Your task to perform on an android device: turn off smart reply in the gmail app Image 0: 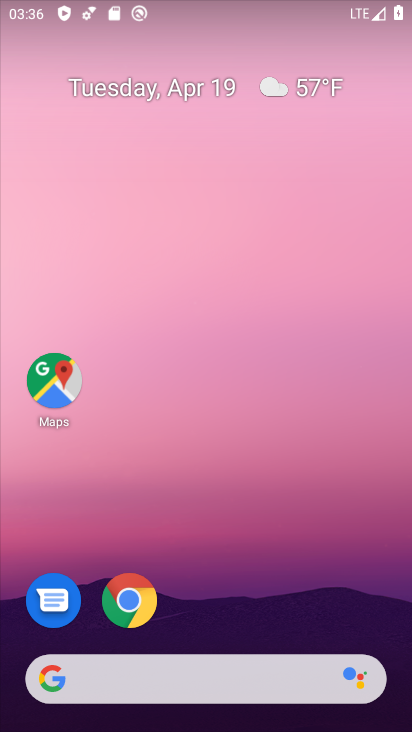
Step 0: drag from (380, 621) to (267, 223)
Your task to perform on an android device: turn off smart reply in the gmail app Image 1: 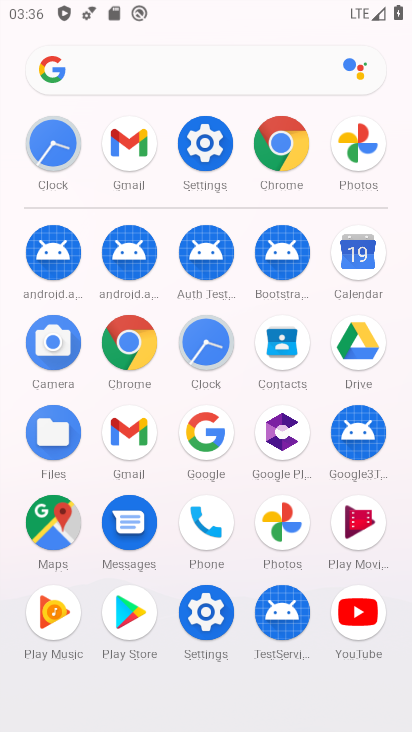
Step 1: click (122, 147)
Your task to perform on an android device: turn off smart reply in the gmail app Image 2: 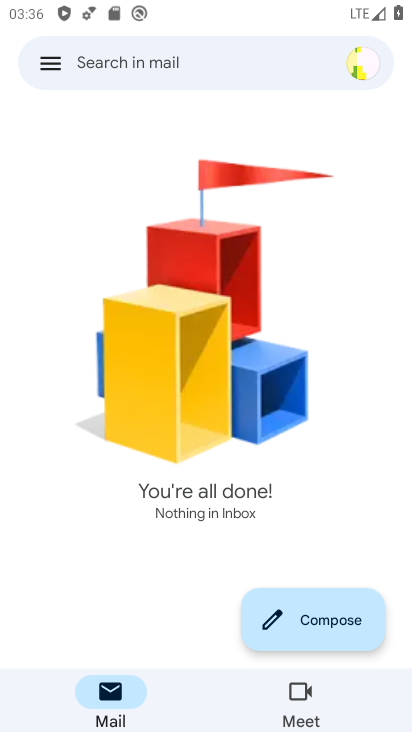
Step 2: click (52, 70)
Your task to perform on an android device: turn off smart reply in the gmail app Image 3: 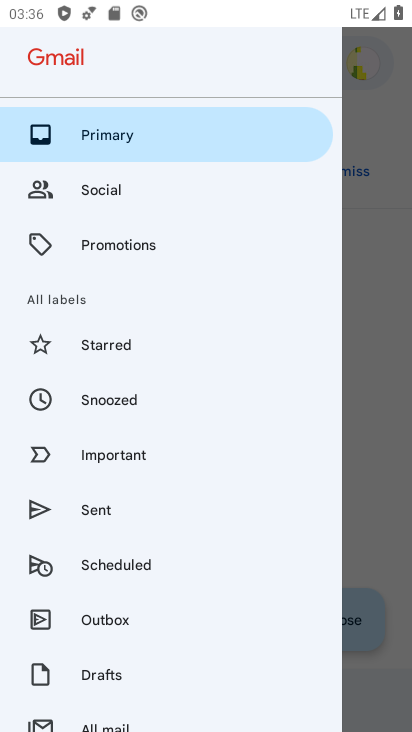
Step 3: drag from (195, 639) to (203, 192)
Your task to perform on an android device: turn off smart reply in the gmail app Image 4: 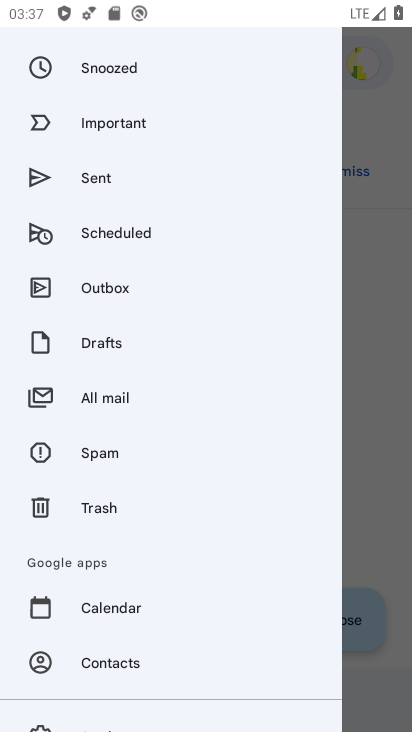
Step 4: drag from (290, 666) to (261, 330)
Your task to perform on an android device: turn off smart reply in the gmail app Image 5: 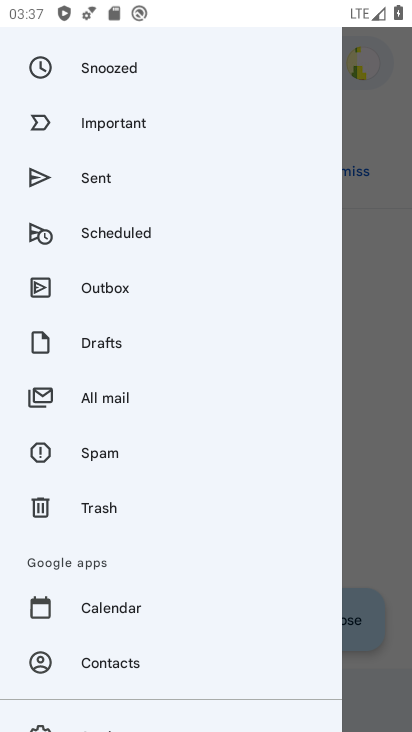
Step 5: drag from (221, 665) to (194, 298)
Your task to perform on an android device: turn off smart reply in the gmail app Image 6: 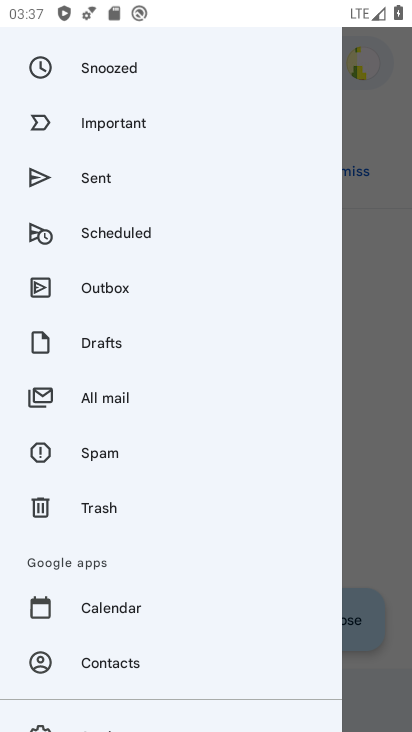
Step 6: drag from (131, 543) to (125, 170)
Your task to perform on an android device: turn off smart reply in the gmail app Image 7: 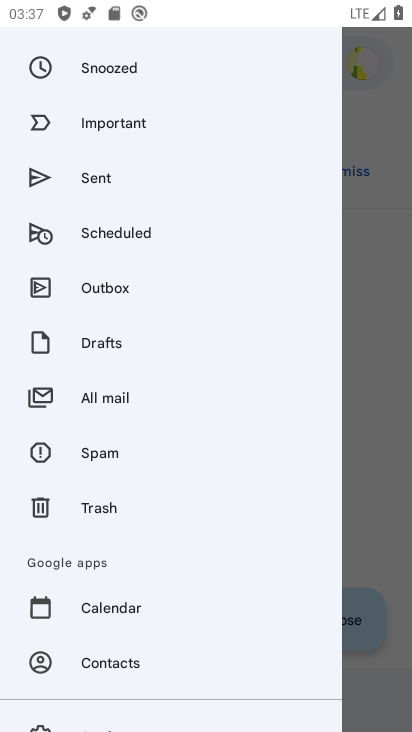
Step 7: drag from (277, 696) to (284, 173)
Your task to perform on an android device: turn off smart reply in the gmail app Image 8: 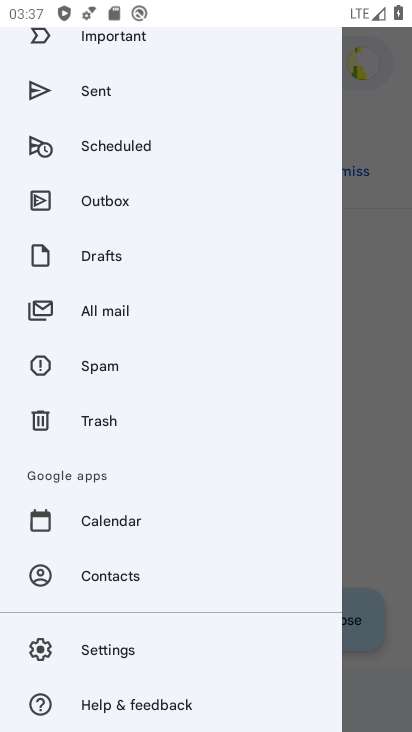
Step 8: click (250, 649)
Your task to perform on an android device: turn off smart reply in the gmail app Image 9: 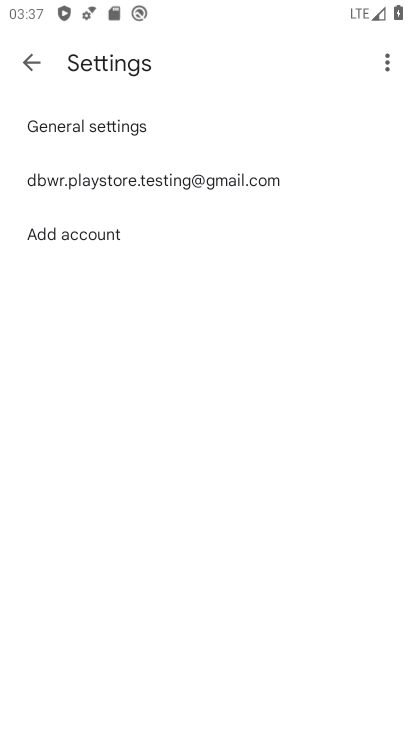
Step 9: click (248, 194)
Your task to perform on an android device: turn off smart reply in the gmail app Image 10: 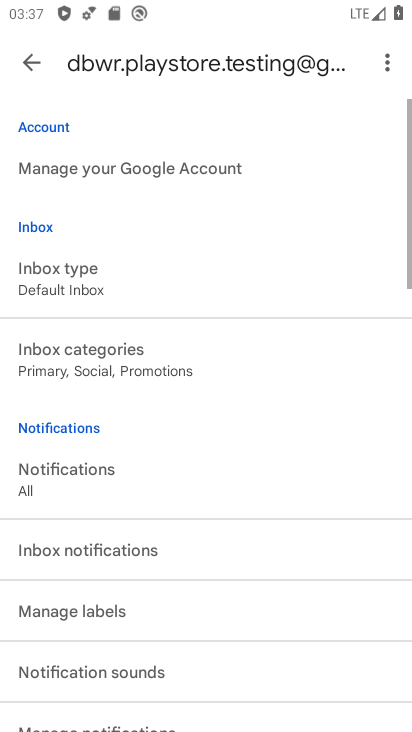
Step 10: drag from (316, 656) to (261, 275)
Your task to perform on an android device: turn off smart reply in the gmail app Image 11: 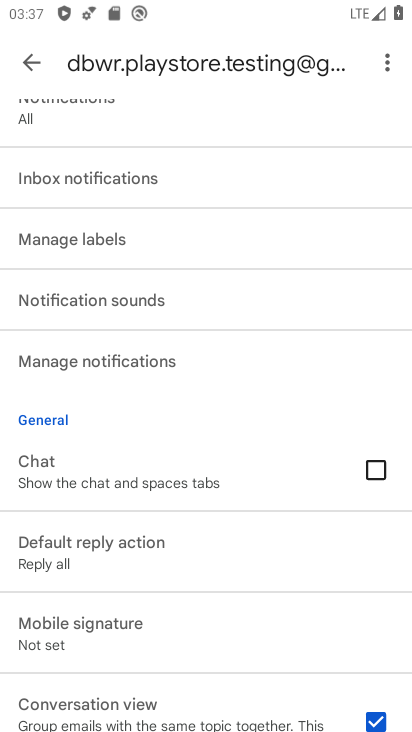
Step 11: drag from (297, 638) to (270, 388)
Your task to perform on an android device: turn off smart reply in the gmail app Image 12: 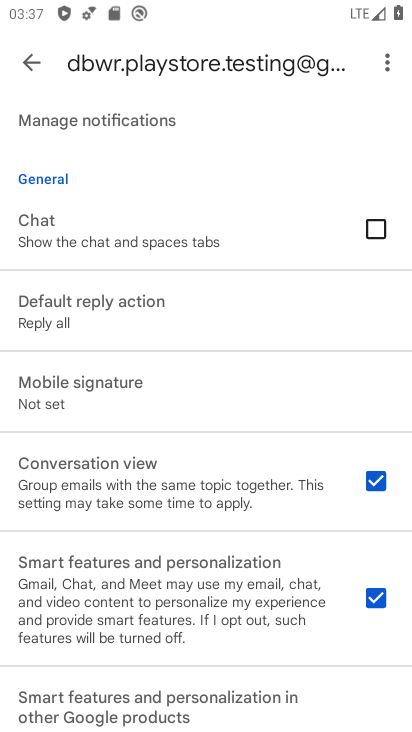
Step 12: drag from (324, 661) to (306, 306)
Your task to perform on an android device: turn off smart reply in the gmail app Image 13: 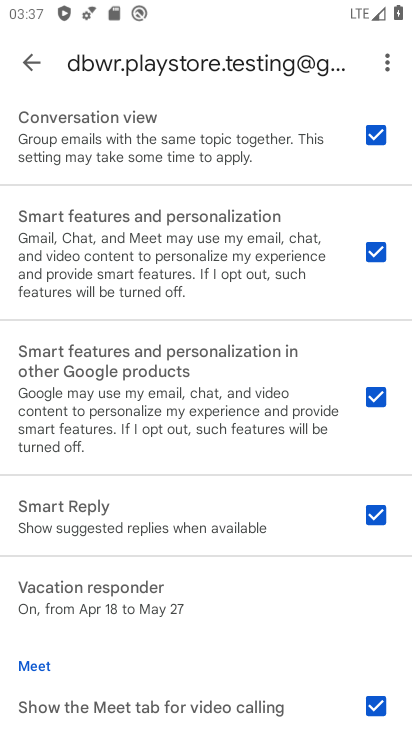
Step 13: click (378, 518)
Your task to perform on an android device: turn off smart reply in the gmail app Image 14: 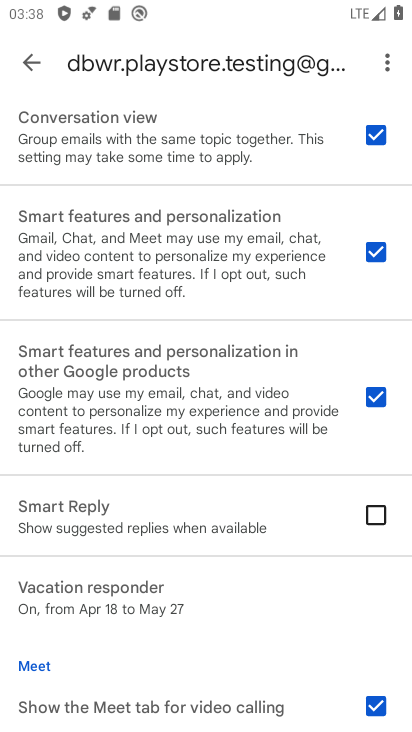
Step 14: task complete